Your task to perform on an android device: toggle data saver in the chrome app Image 0: 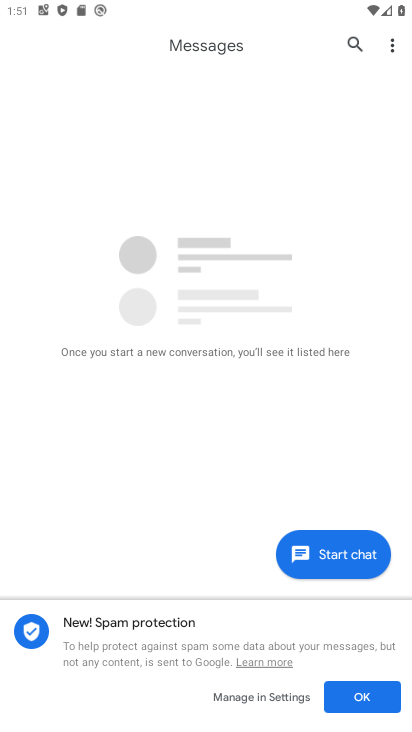
Step 0: press back button
Your task to perform on an android device: toggle data saver in the chrome app Image 1: 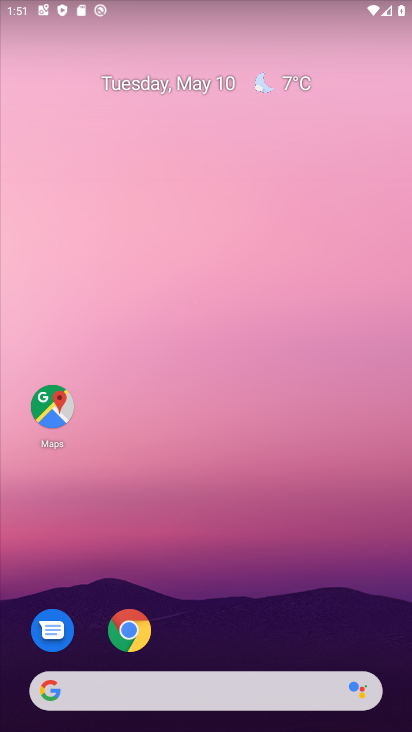
Step 1: drag from (212, 614) to (172, 17)
Your task to perform on an android device: toggle data saver in the chrome app Image 2: 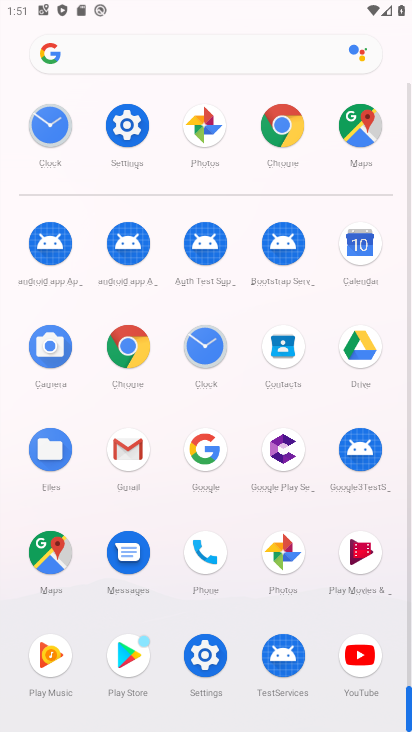
Step 2: click (125, 344)
Your task to perform on an android device: toggle data saver in the chrome app Image 3: 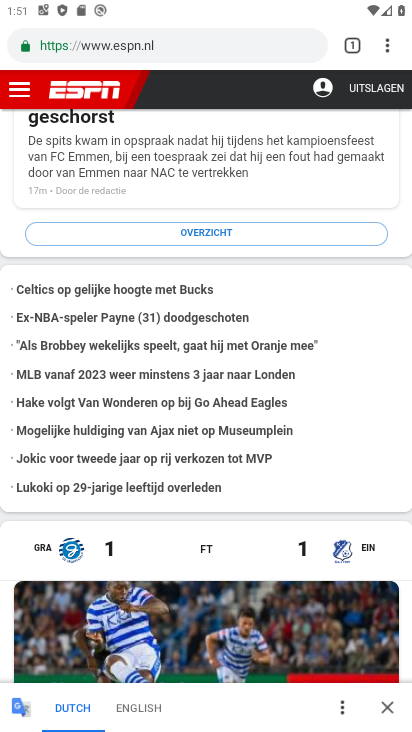
Step 3: drag from (388, 46) to (229, 544)
Your task to perform on an android device: toggle data saver in the chrome app Image 4: 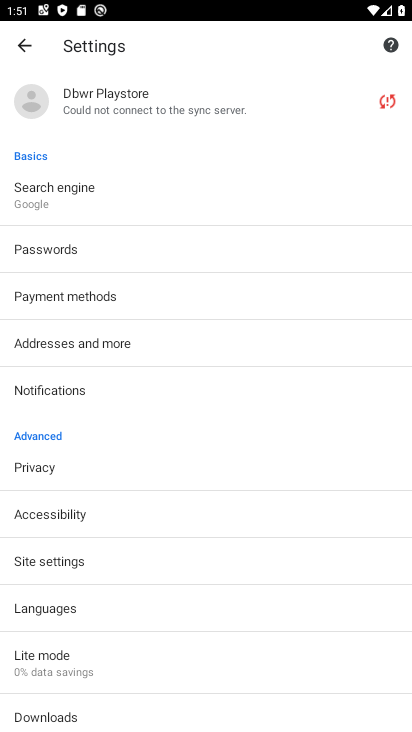
Step 4: drag from (106, 643) to (136, 415)
Your task to perform on an android device: toggle data saver in the chrome app Image 5: 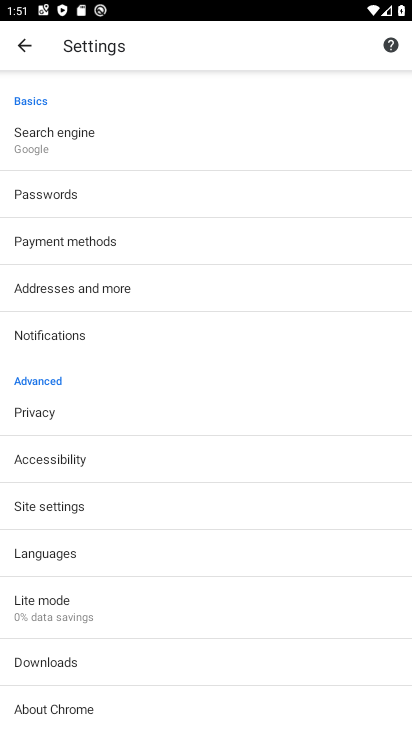
Step 5: click (79, 613)
Your task to perform on an android device: toggle data saver in the chrome app Image 6: 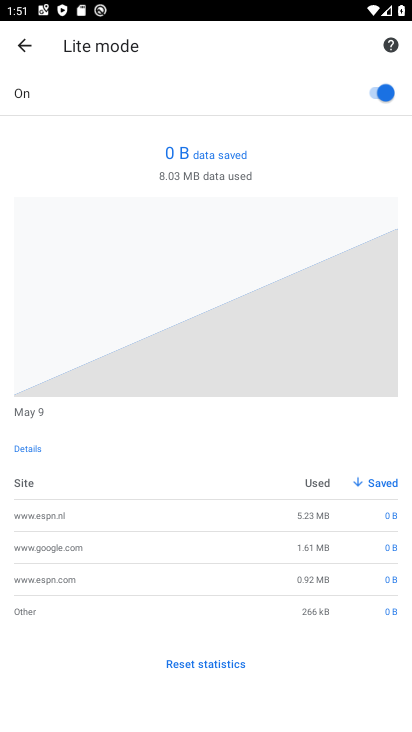
Step 6: click (371, 93)
Your task to perform on an android device: toggle data saver in the chrome app Image 7: 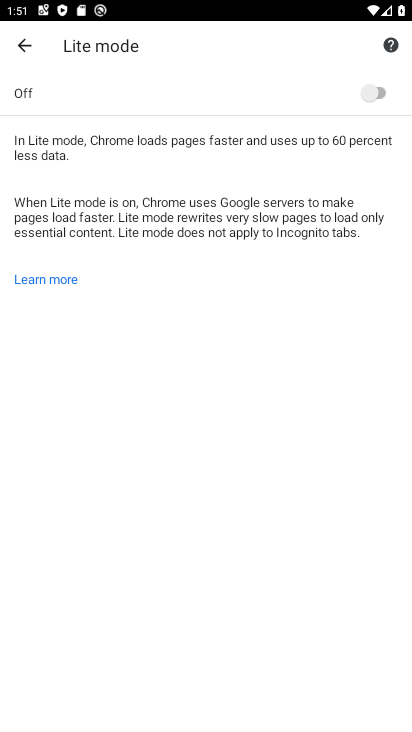
Step 7: task complete